Your task to perform on an android device: When is my next appointment? Image 0: 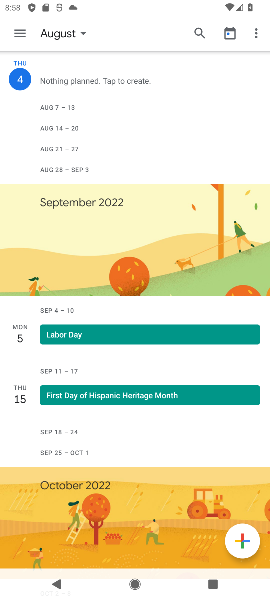
Step 0: click (223, 30)
Your task to perform on an android device: When is my next appointment? Image 1: 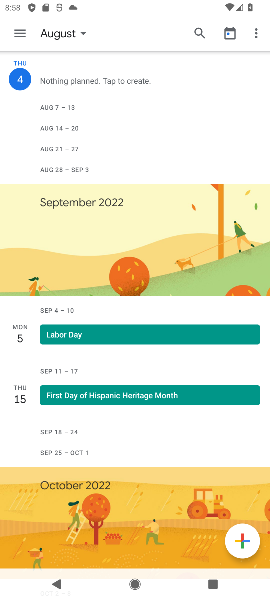
Step 1: click (83, 32)
Your task to perform on an android device: When is my next appointment? Image 2: 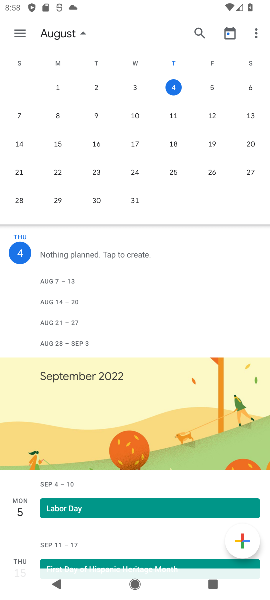
Step 2: click (174, 88)
Your task to perform on an android device: When is my next appointment? Image 3: 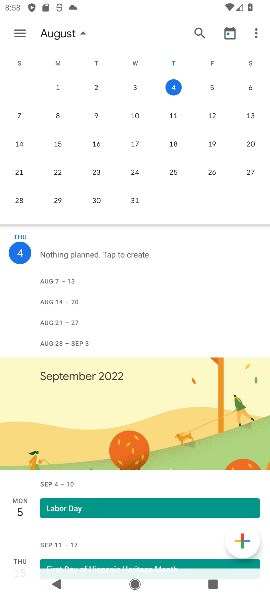
Step 3: task complete